Your task to perform on an android device: see tabs open on other devices in the chrome app Image 0: 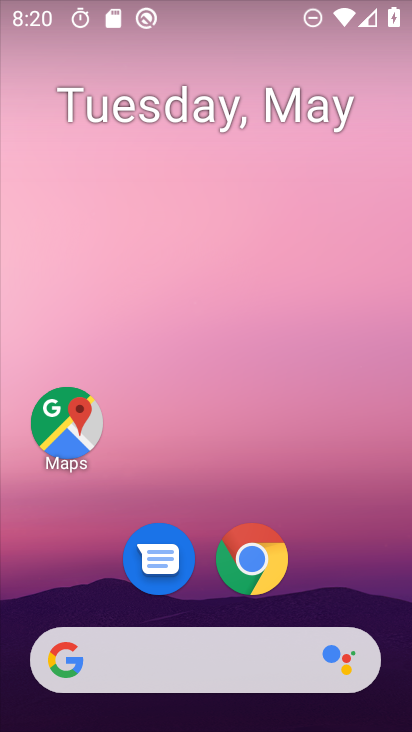
Step 0: drag from (399, 650) to (280, 88)
Your task to perform on an android device: see tabs open on other devices in the chrome app Image 1: 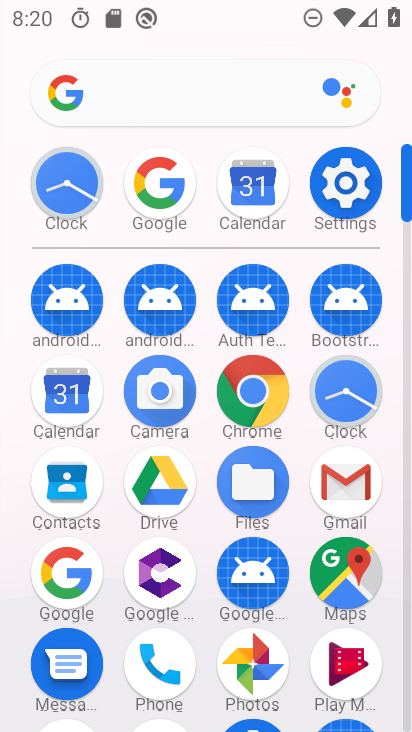
Step 1: click (250, 382)
Your task to perform on an android device: see tabs open on other devices in the chrome app Image 2: 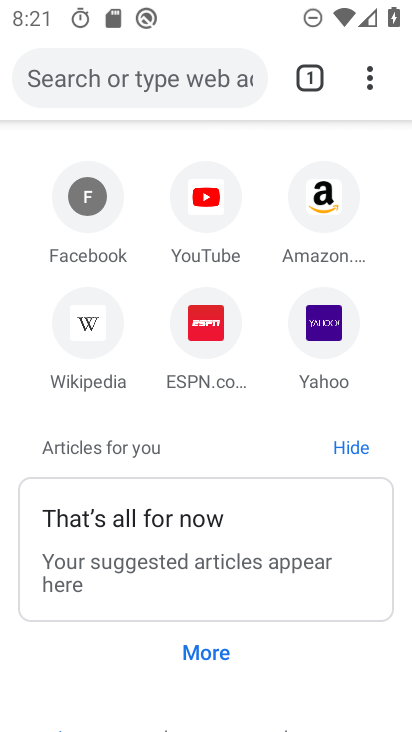
Step 2: task complete